Your task to perform on an android device: find which apps use the phone's location Image 0: 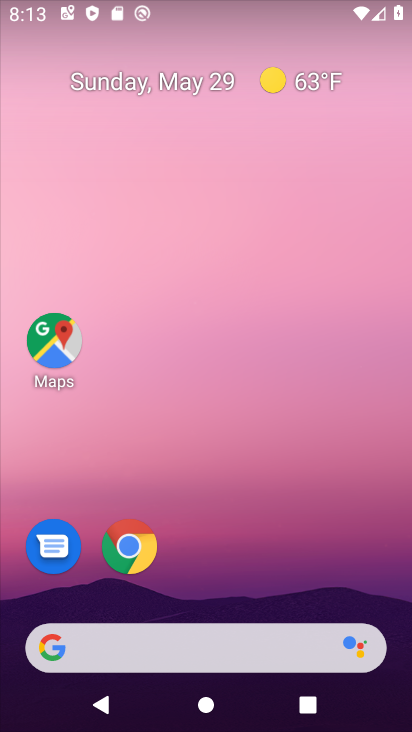
Step 0: drag from (152, 645) to (271, 131)
Your task to perform on an android device: find which apps use the phone's location Image 1: 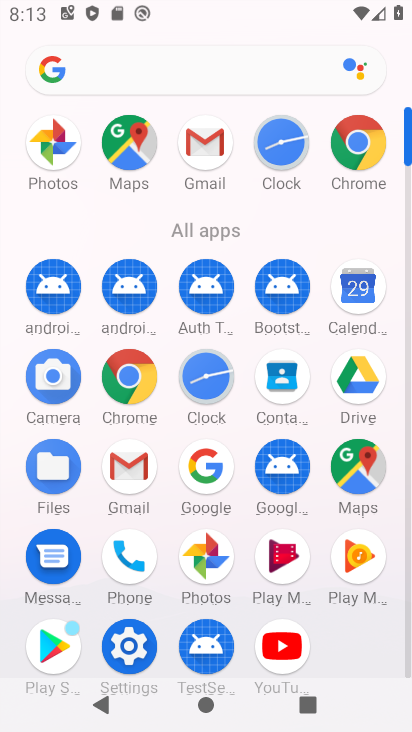
Step 1: click (133, 644)
Your task to perform on an android device: find which apps use the phone's location Image 2: 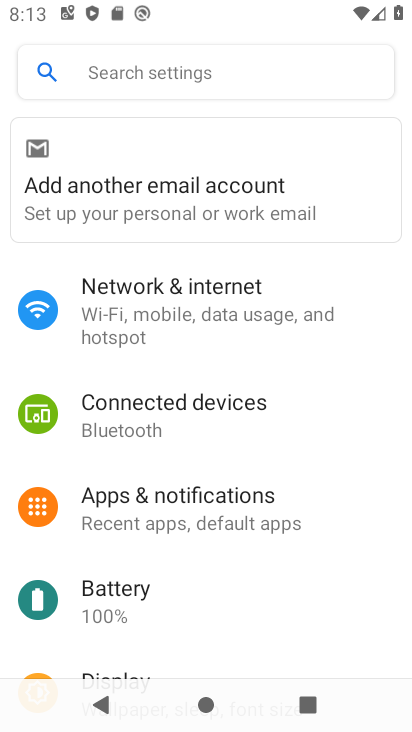
Step 2: drag from (235, 612) to (328, 175)
Your task to perform on an android device: find which apps use the phone's location Image 3: 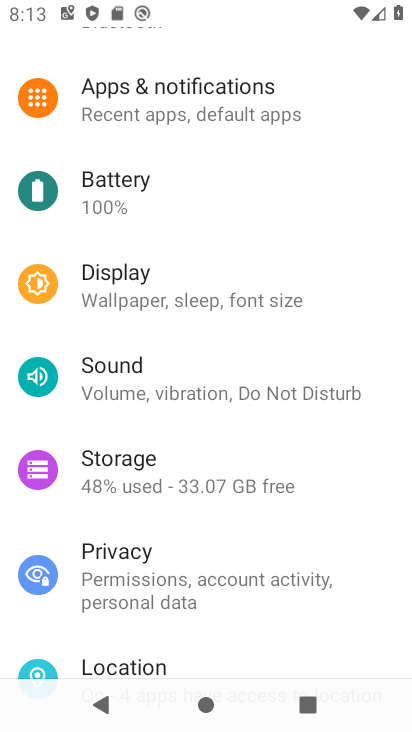
Step 3: drag from (217, 620) to (289, 234)
Your task to perform on an android device: find which apps use the phone's location Image 4: 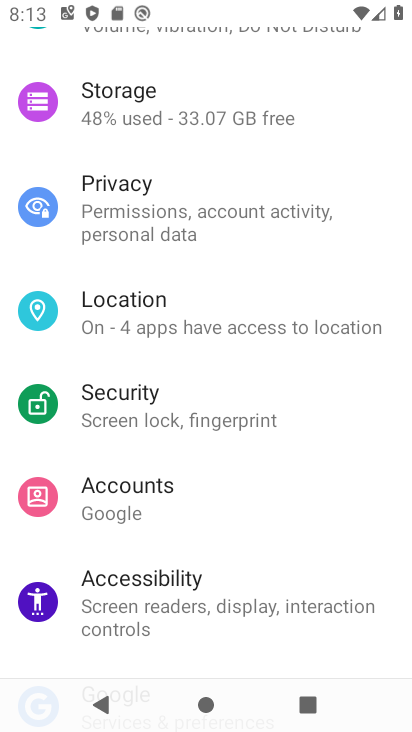
Step 4: click (136, 313)
Your task to perform on an android device: find which apps use the phone's location Image 5: 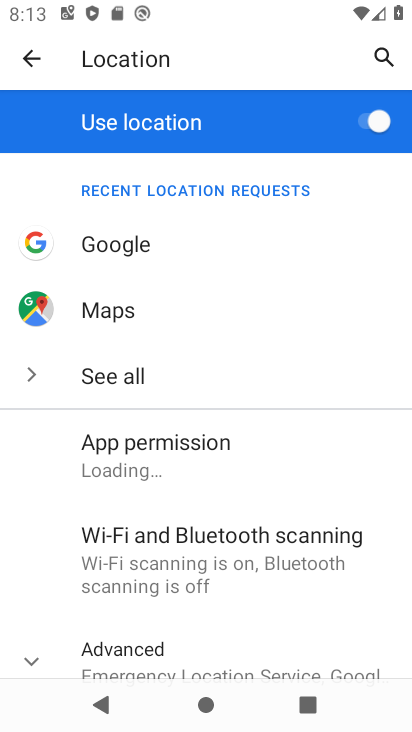
Step 5: click (176, 449)
Your task to perform on an android device: find which apps use the phone's location Image 6: 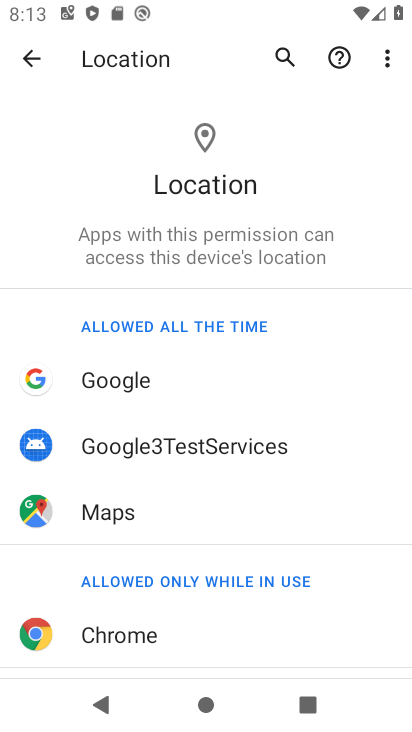
Step 6: drag from (214, 639) to (345, 112)
Your task to perform on an android device: find which apps use the phone's location Image 7: 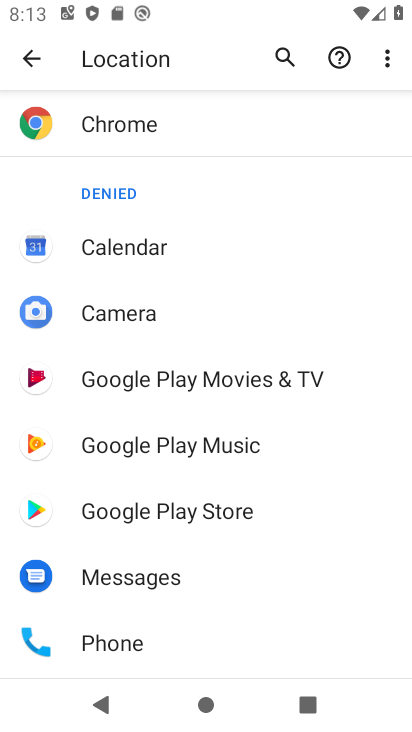
Step 7: click (137, 646)
Your task to perform on an android device: find which apps use the phone's location Image 8: 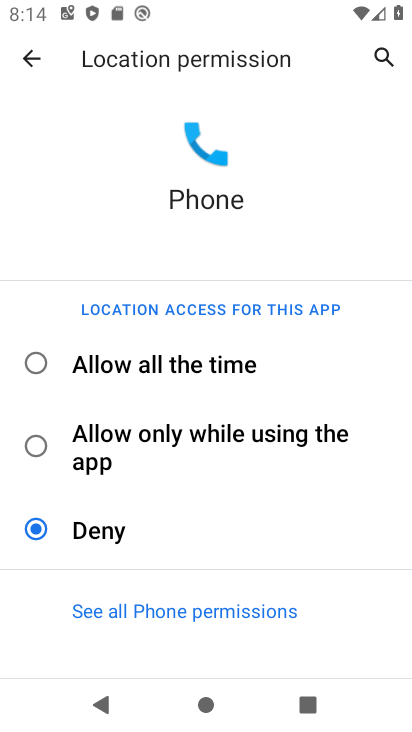
Step 8: task complete